Your task to perform on an android device: Open Chrome and go to settings Image 0: 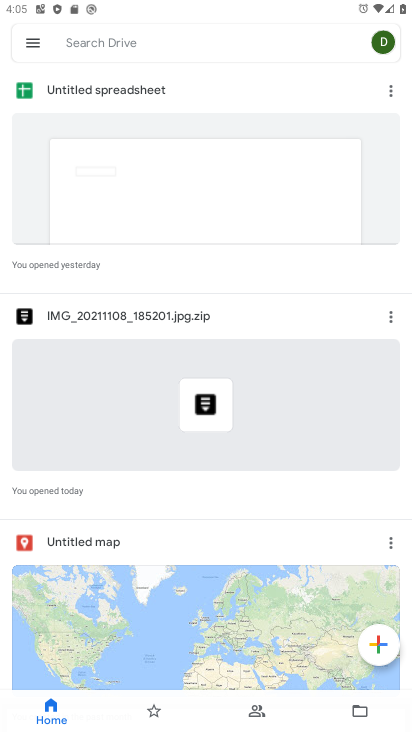
Step 0: press home button
Your task to perform on an android device: Open Chrome and go to settings Image 1: 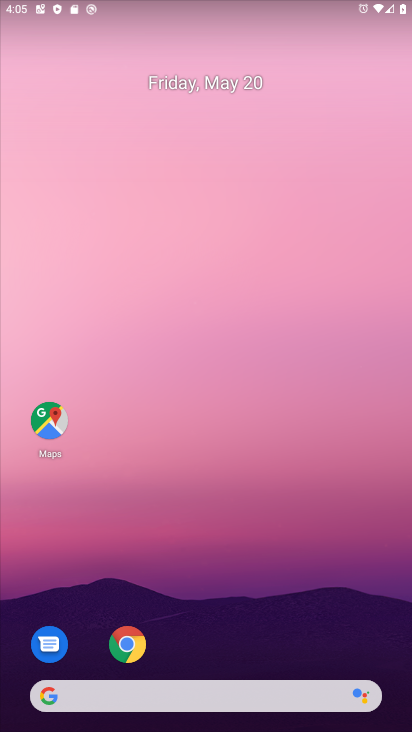
Step 1: click (136, 648)
Your task to perform on an android device: Open Chrome and go to settings Image 2: 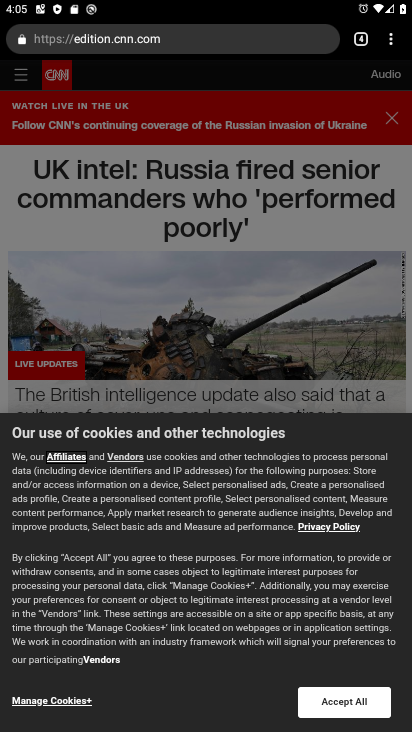
Step 2: click (392, 36)
Your task to perform on an android device: Open Chrome and go to settings Image 3: 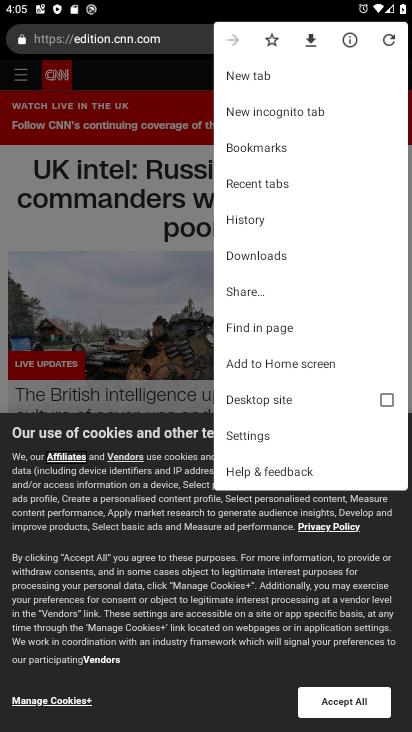
Step 3: click (262, 429)
Your task to perform on an android device: Open Chrome and go to settings Image 4: 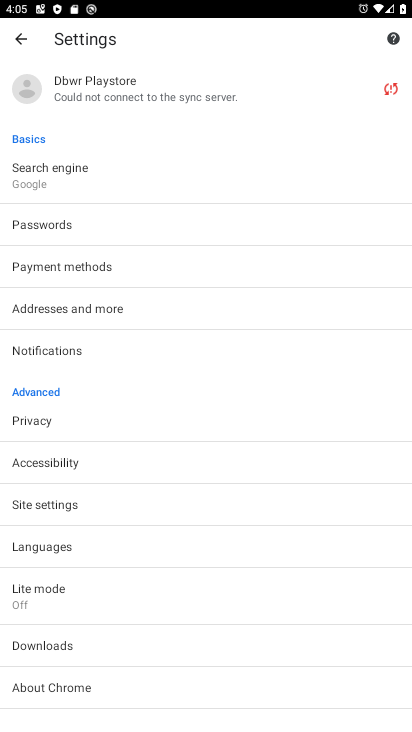
Step 4: task complete